Your task to perform on an android device: Open settings on Google Maps Image 0: 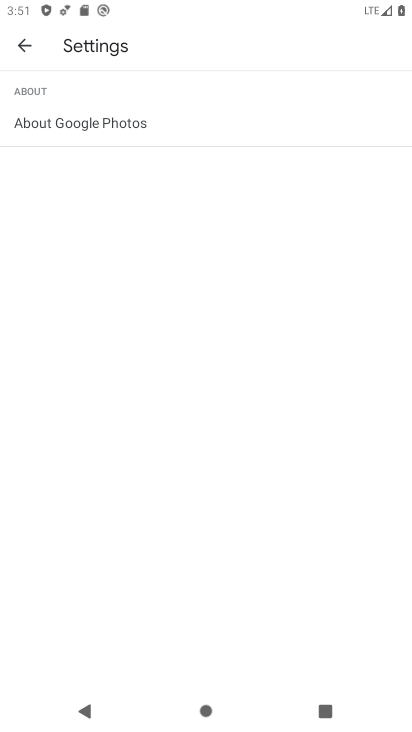
Step 0: click (139, 657)
Your task to perform on an android device: Open settings on Google Maps Image 1: 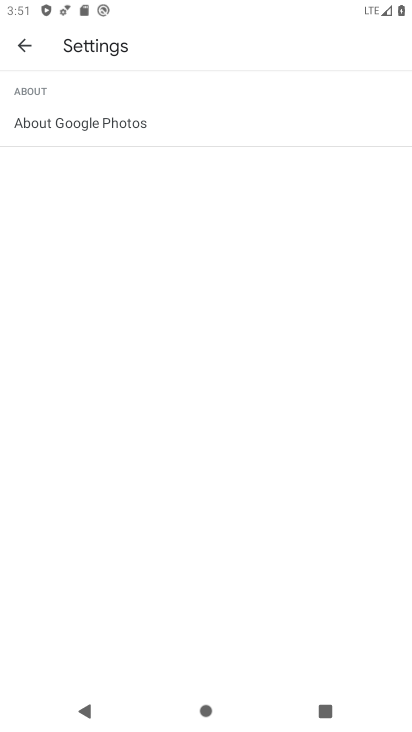
Step 1: press home button
Your task to perform on an android device: Open settings on Google Maps Image 2: 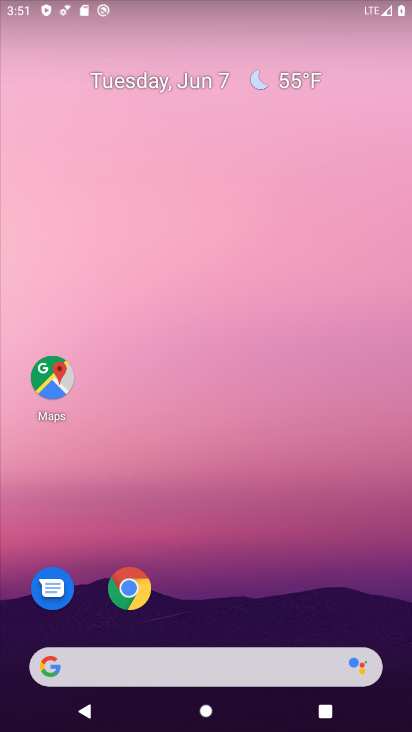
Step 2: click (55, 385)
Your task to perform on an android device: Open settings on Google Maps Image 3: 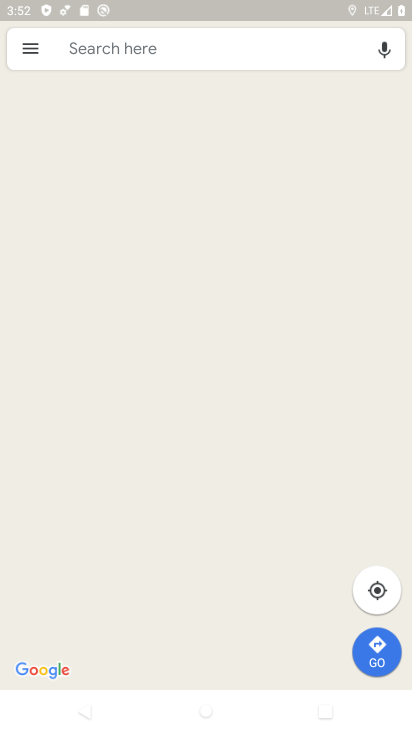
Step 3: click (33, 50)
Your task to perform on an android device: Open settings on Google Maps Image 4: 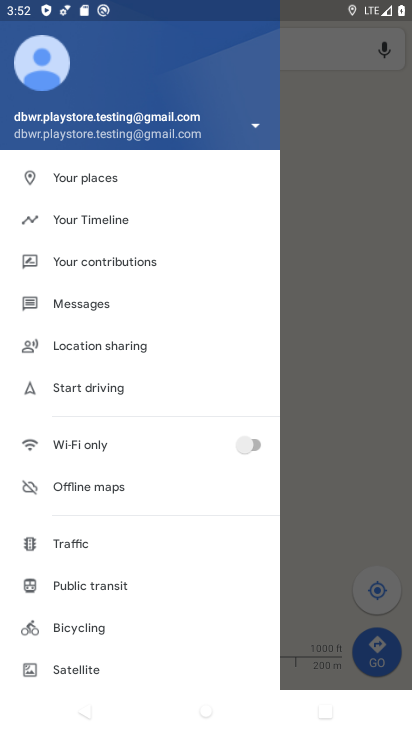
Step 4: drag from (95, 600) to (167, 273)
Your task to perform on an android device: Open settings on Google Maps Image 5: 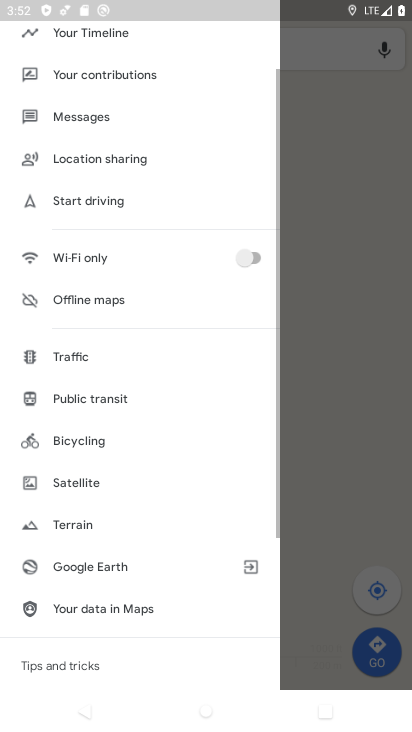
Step 5: drag from (120, 629) to (176, 293)
Your task to perform on an android device: Open settings on Google Maps Image 6: 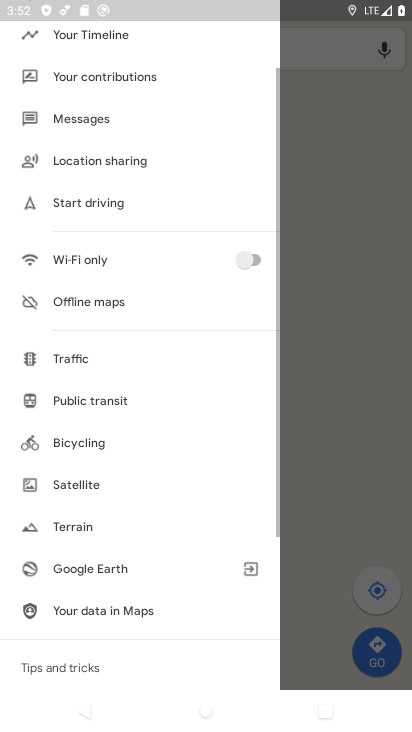
Step 6: drag from (101, 664) to (169, 333)
Your task to perform on an android device: Open settings on Google Maps Image 7: 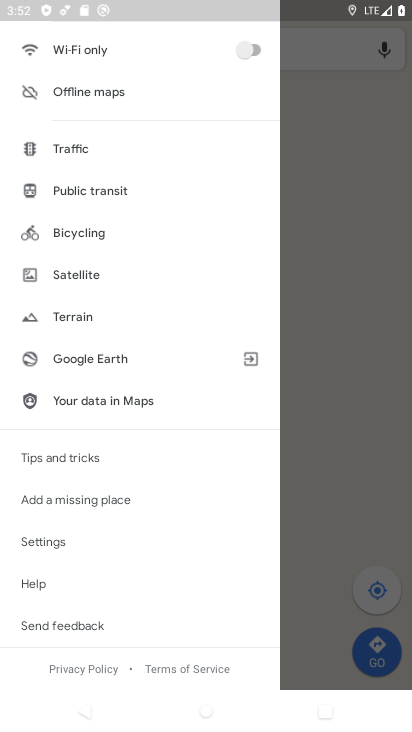
Step 7: click (94, 555)
Your task to perform on an android device: Open settings on Google Maps Image 8: 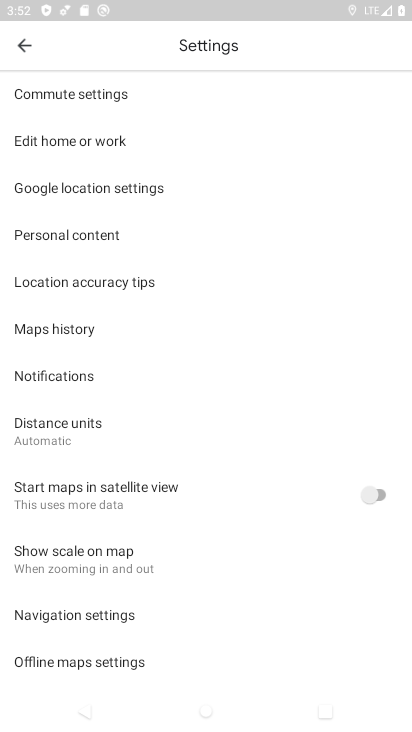
Step 8: task complete